Your task to perform on an android device: toggle airplane mode Image 0: 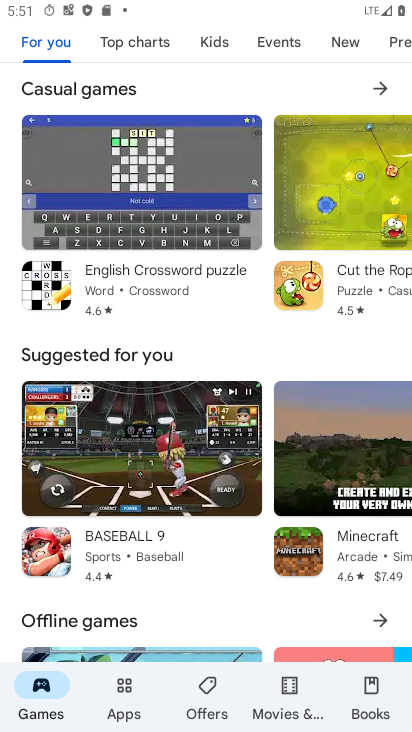
Step 0: press home button
Your task to perform on an android device: toggle airplane mode Image 1: 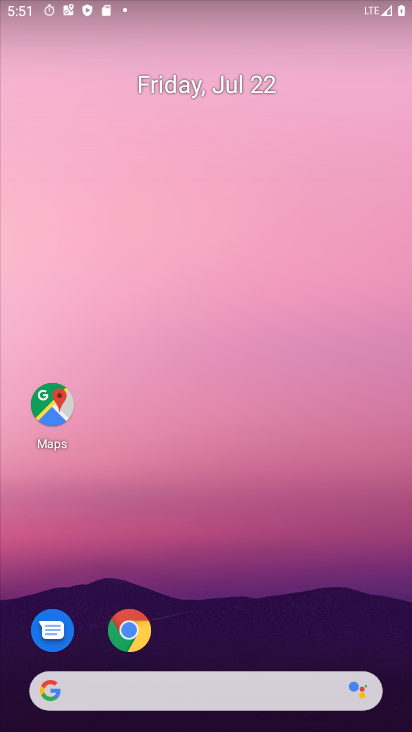
Step 1: drag from (181, 6) to (200, 715)
Your task to perform on an android device: toggle airplane mode Image 2: 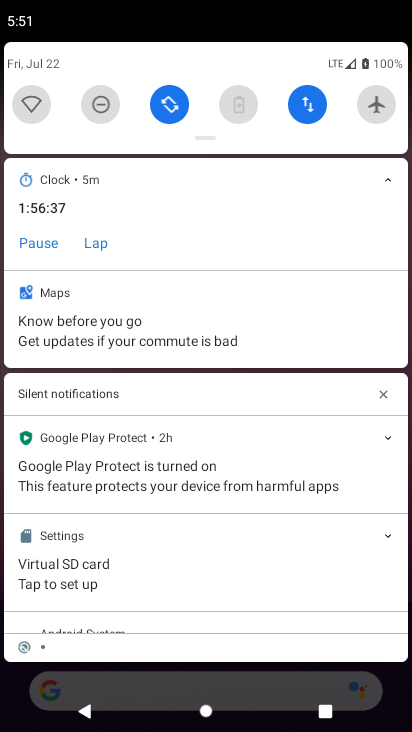
Step 2: drag from (197, 132) to (126, 588)
Your task to perform on an android device: toggle airplane mode Image 3: 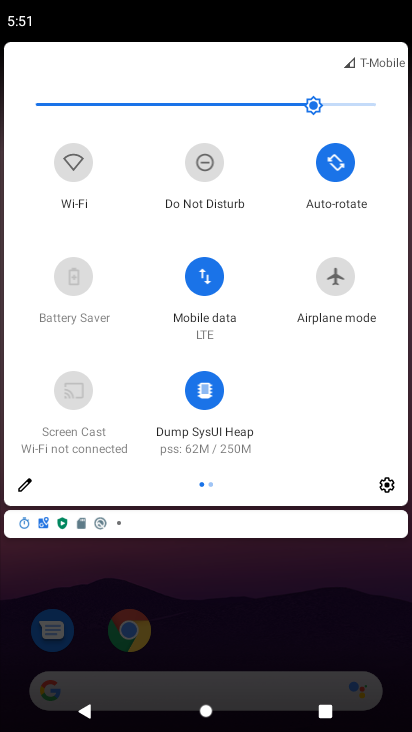
Step 3: click (331, 281)
Your task to perform on an android device: toggle airplane mode Image 4: 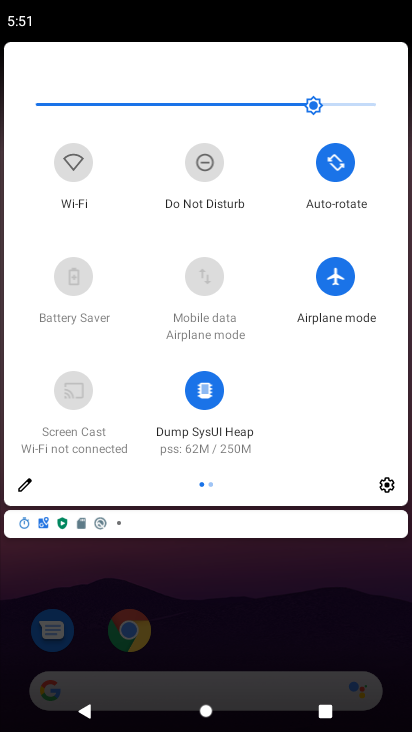
Step 4: task complete